Your task to perform on an android device: change the clock display to analog Image 0: 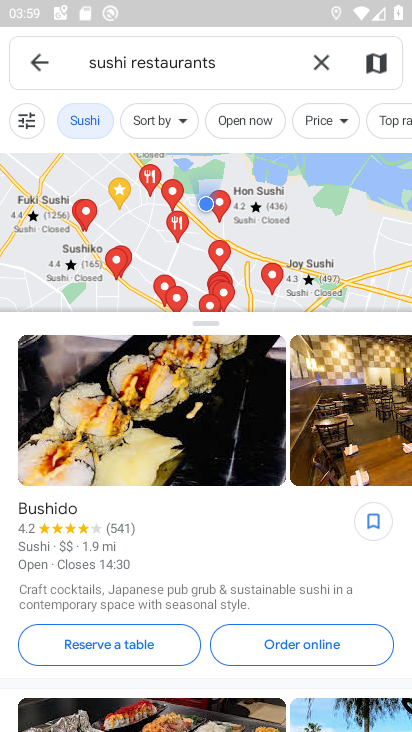
Step 0: press home button
Your task to perform on an android device: change the clock display to analog Image 1: 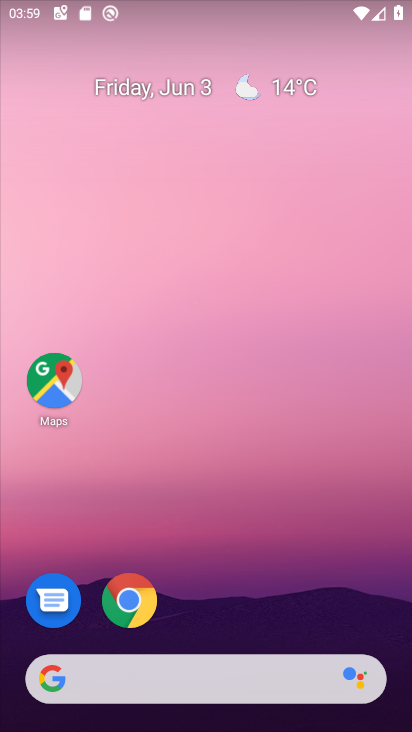
Step 1: drag from (219, 522) to (193, 85)
Your task to perform on an android device: change the clock display to analog Image 2: 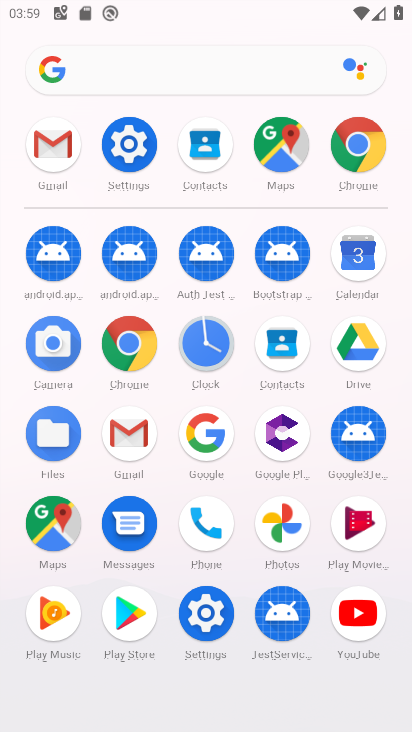
Step 2: click (211, 345)
Your task to perform on an android device: change the clock display to analog Image 3: 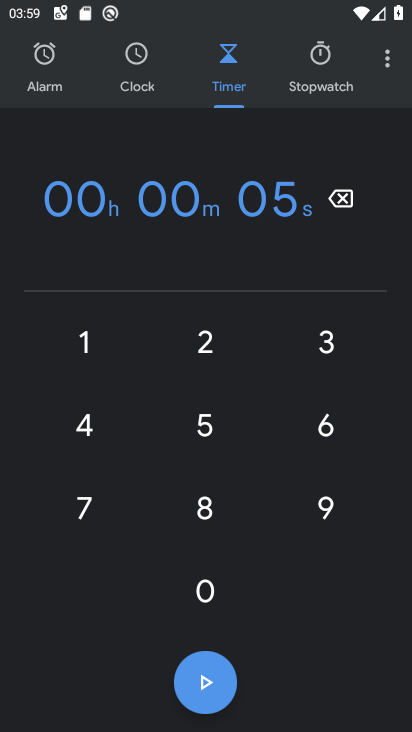
Step 3: drag from (388, 56) to (273, 115)
Your task to perform on an android device: change the clock display to analog Image 4: 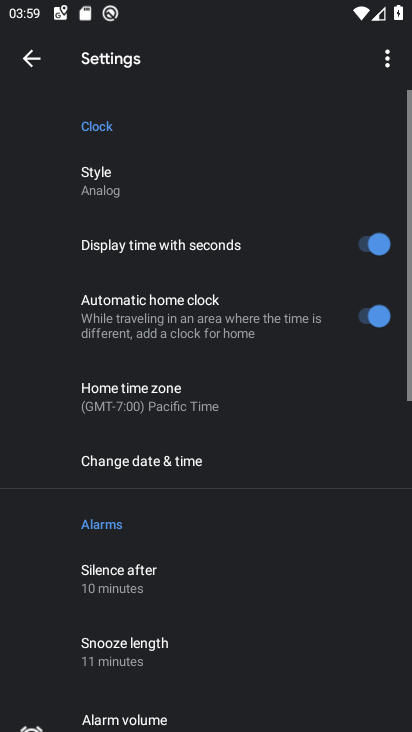
Step 4: click (107, 174)
Your task to perform on an android device: change the clock display to analog Image 5: 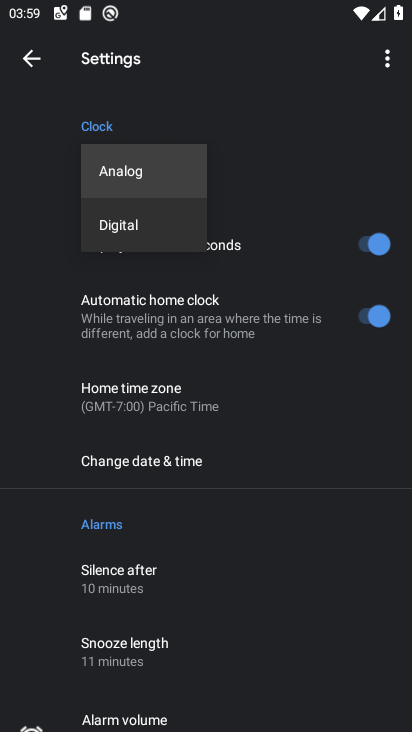
Step 5: task complete